Your task to perform on an android device: check google app version Image 0: 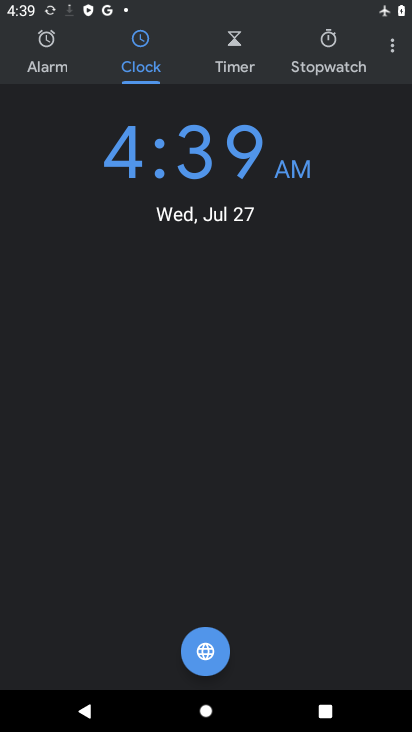
Step 0: press home button
Your task to perform on an android device: check google app version Image 1: 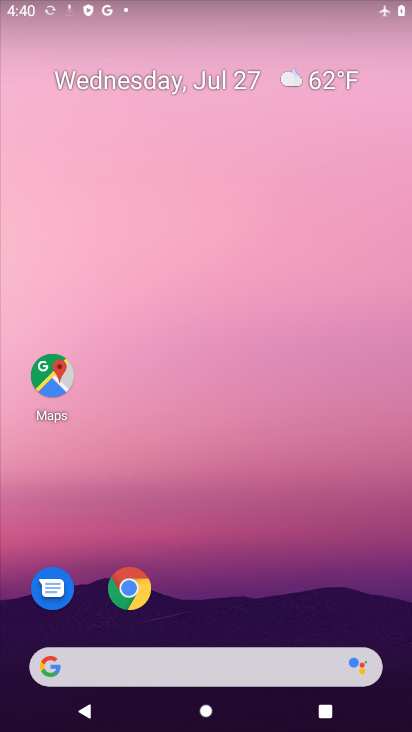
Step 1: click (49, 656)
Your task to perform on an android device: check google app version Image 2: 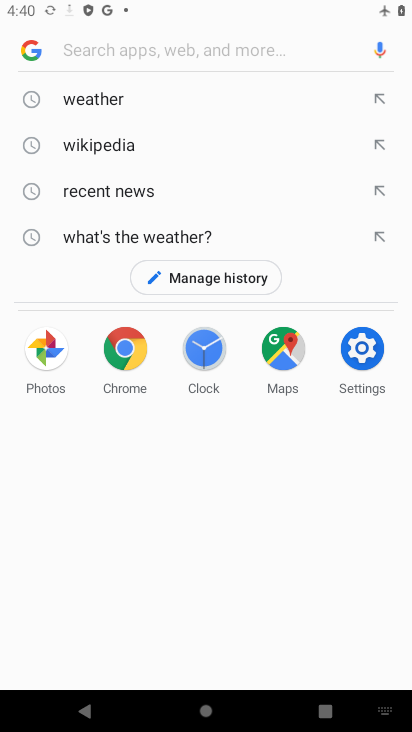
Step 2: click (30, 49)
Your task to perform on an android device: check google app version Image 3: 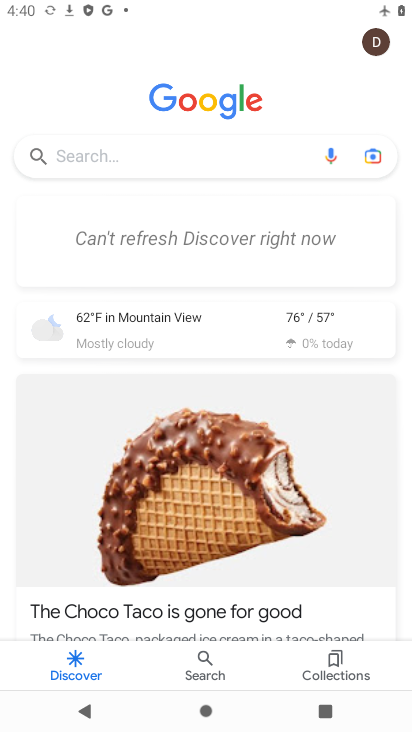
Step 3: click (374, 39)
Your task to perform on an android device: check google app version Image 4: 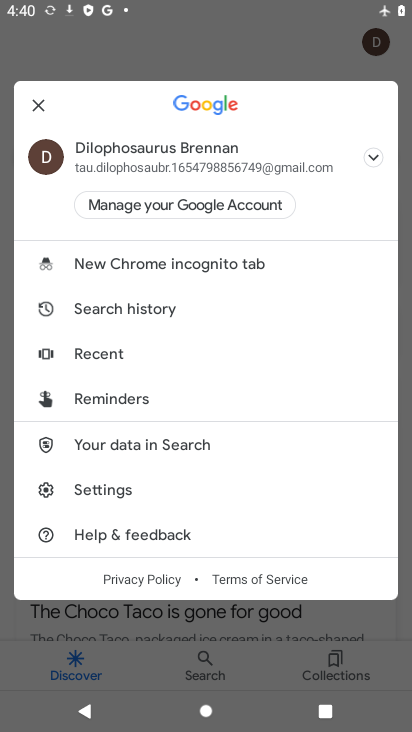
Step 4: click (100, 484)
Your task to perform on an android device: check google app version Image 5: 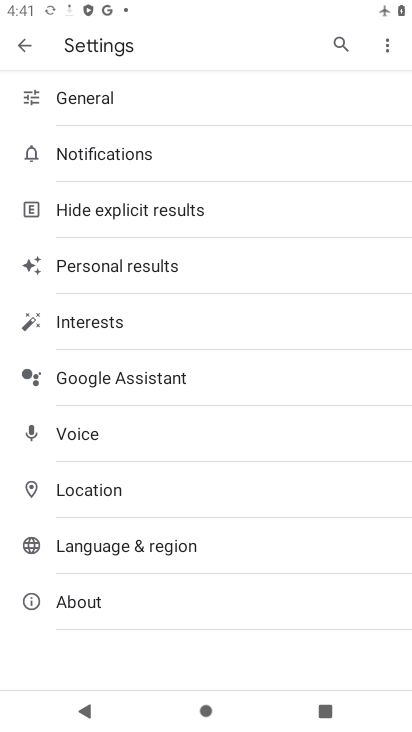
Step 5: click (89, 594)
Your task to perform on an android device: check google app version Image 6: 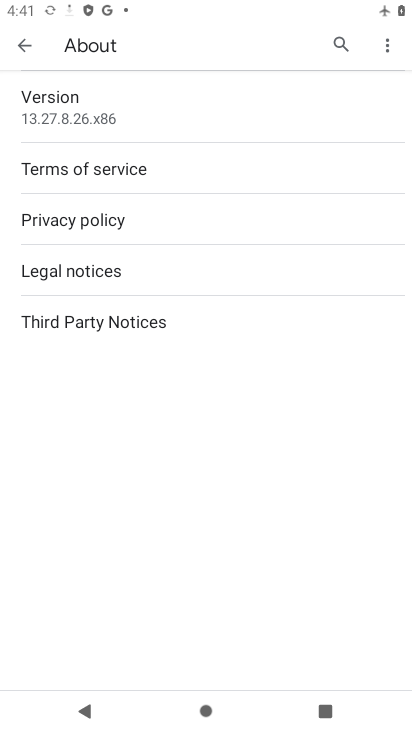
Step 6: task complete